Your task to perform on an android device: Is it going to rain tomorrow? Image 0: 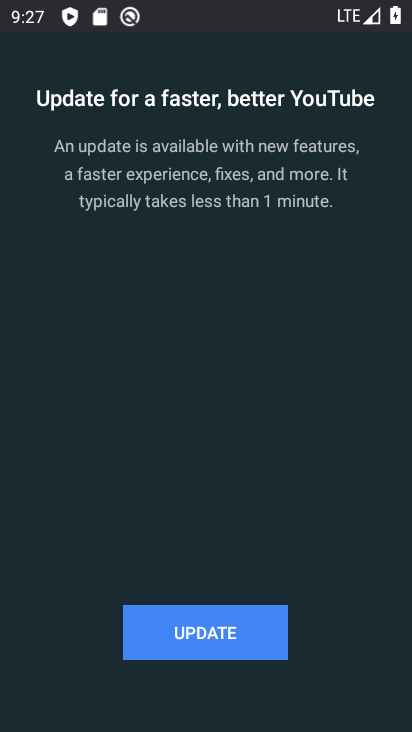
Step 0: press home button
Your task to perform on an android device: Is it going to rain tomorrow? Image 1: 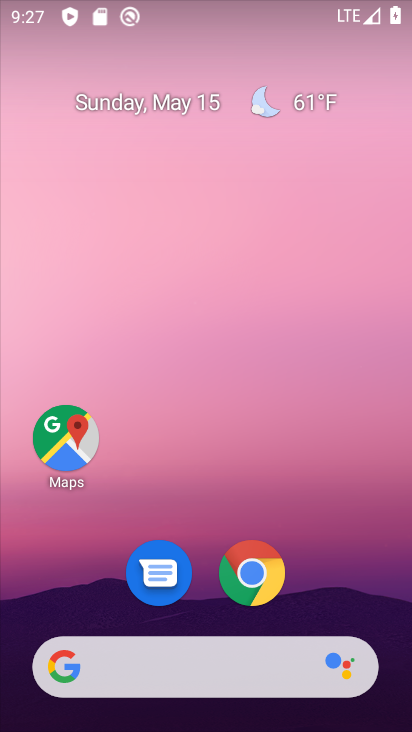
Step 1: click (182, 657)
Your task to perform on an android device: Is it going to rain tomorrow? Image 2: 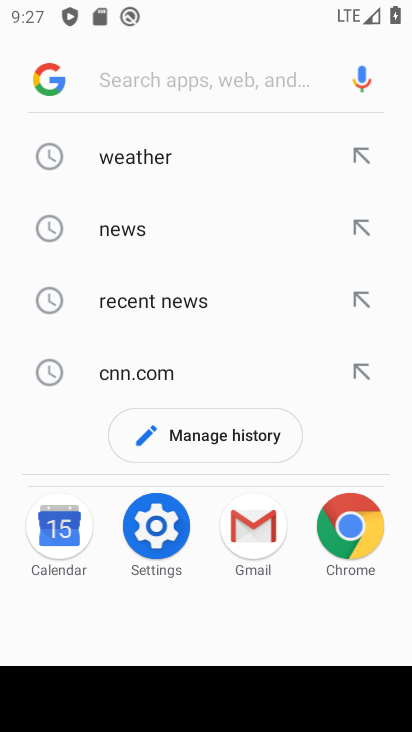
Step 2: click (168, 157)
Your task to perform on an android device: Is it going to rain tomorrow? Image 3: 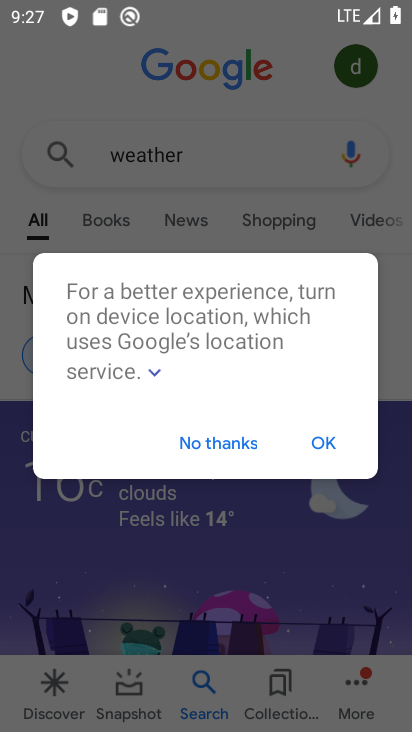
Step 3: click (195, 443)
Your task to perform on an android device: Is it going to rain tomorrow? Image 4: 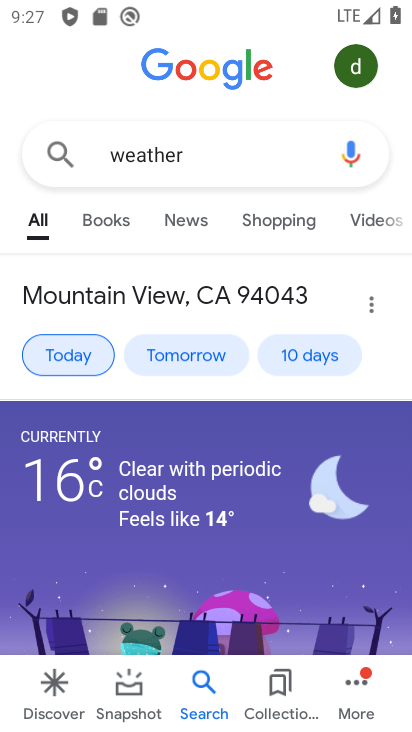
Step 4: click (187, 351)
Your task to perform on an android device: Is it going to rain tomorrow? Image 5: 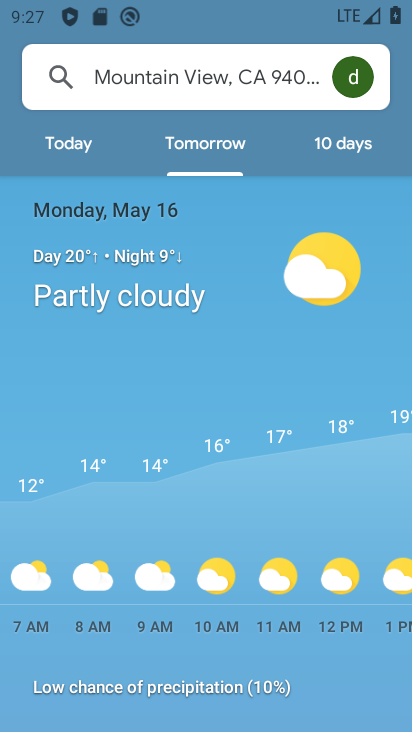
Step 5: task complete